Your task to perform on an android device: Open the Play Movies app and select the watchlist tab. Image 0: 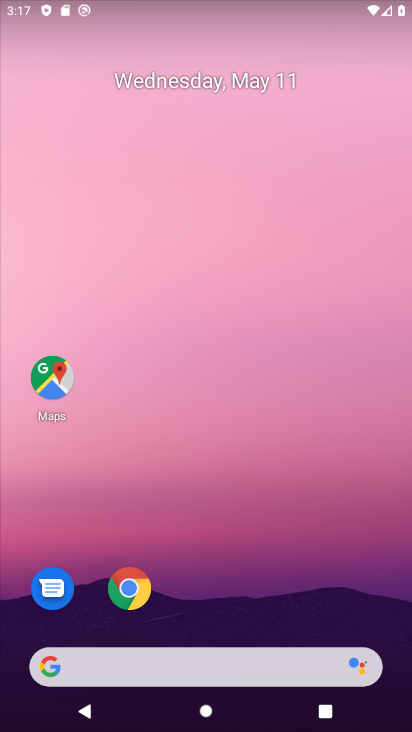
Step 0: drag from (235, 608) to (285, 23)
Your task to perform on an android device: Open the Play Movies app and select the watchlist tab. Image 1: 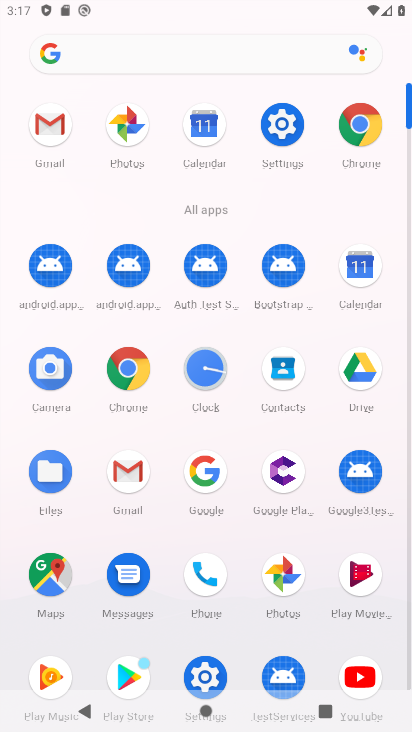
Step 1: click (349, 569)
Your task to perform on an android device: Open the Play Movies app and select the watchlist tab. Image 2: 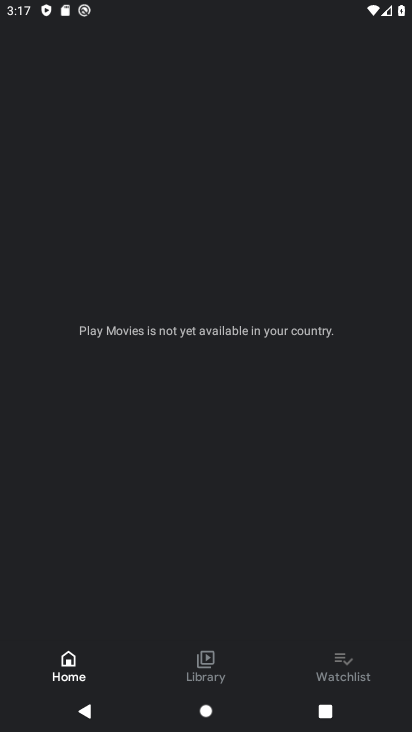
Step 2: click (344, 662)
Your task to perform on an android device: Open the Play Movies app and select the watchlist tab. Image 3: 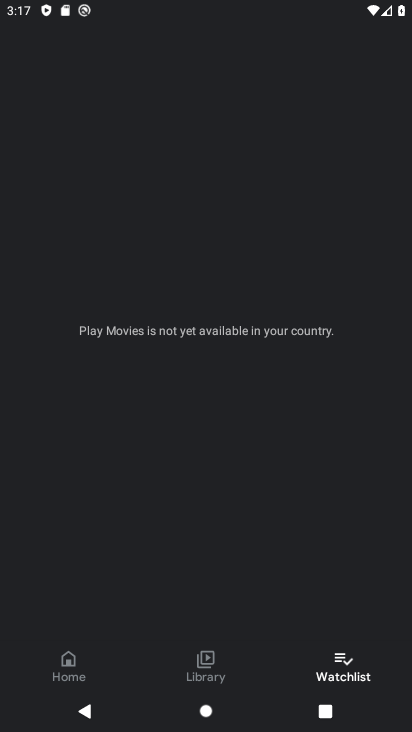
Step 3: task complete